Your task to perform on an android device: open chrome and create a bookmark for the current page Image 0: 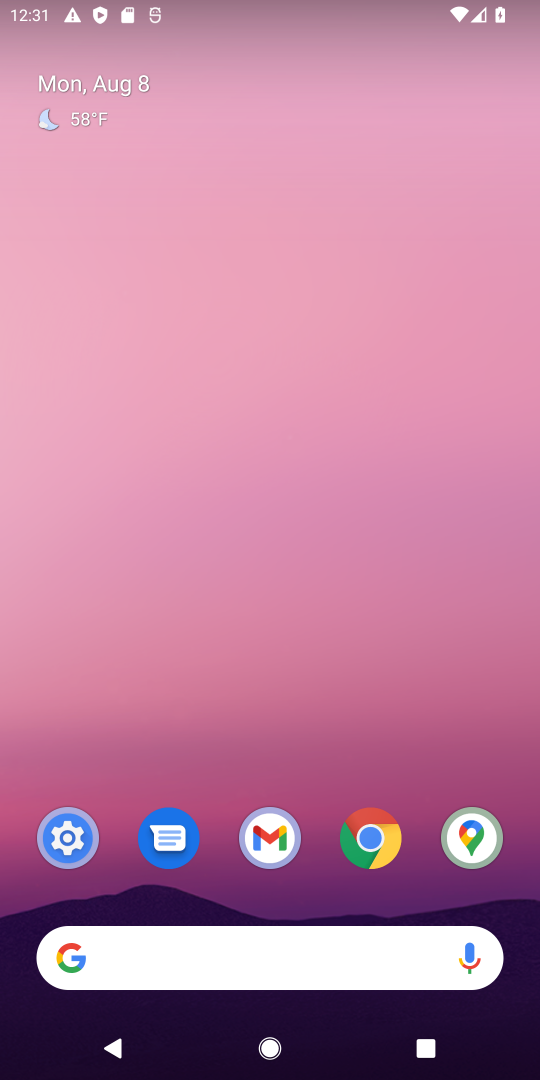
Step 0: press home button
Your task to perform on an android device: open chrome and create a bookmark for the current page Image 1: 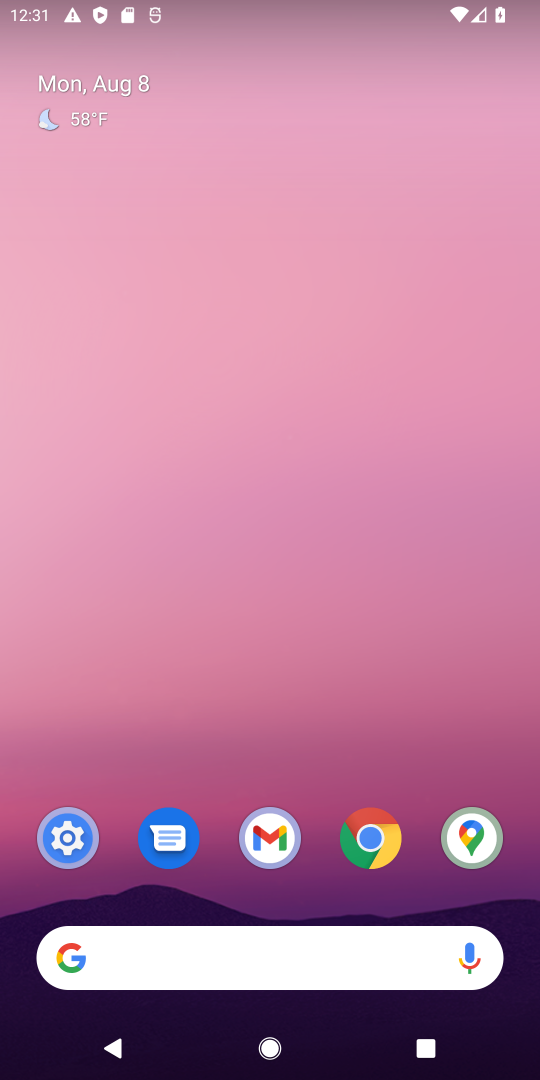
Step 1: click (378, 840)
Your task to perform on an android device: open chrome and create a bookmark for the current page Image 2: 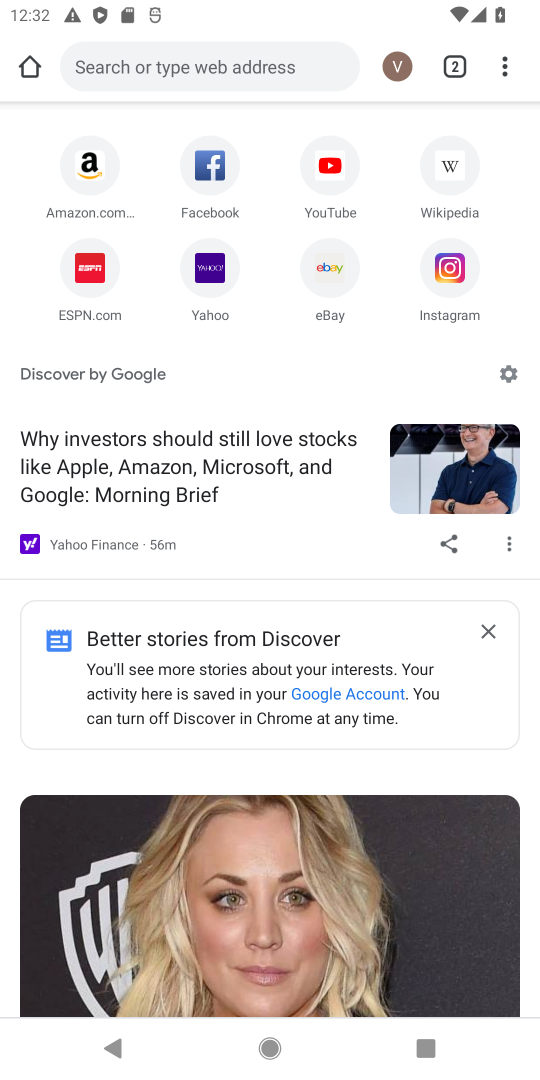
Step 2: task complete